Your task to perform on an android device: Go to Google maps Image 0: 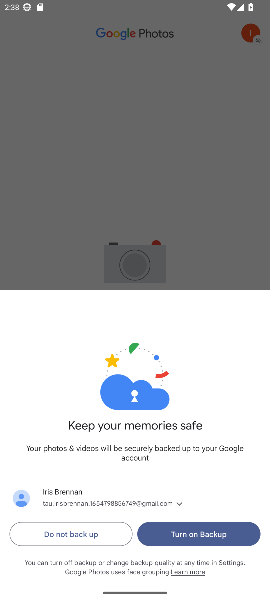
Step 0: press home button
Your task to perform on an android device: Go to Google maps Image 1: 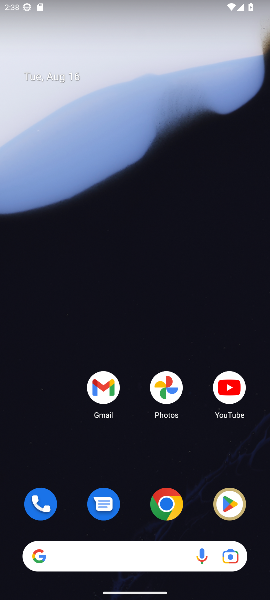
Step 1: drag from (149, 528) to (134, 243)
Your task to perform on an android device: Go to Google maps Image 2: 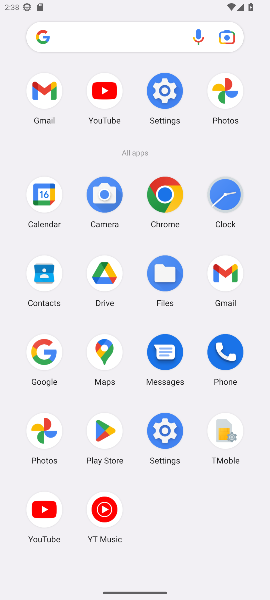
Step 2: click (107, 346)
Your task to perform on an android device: Go to Google maps Image 3: 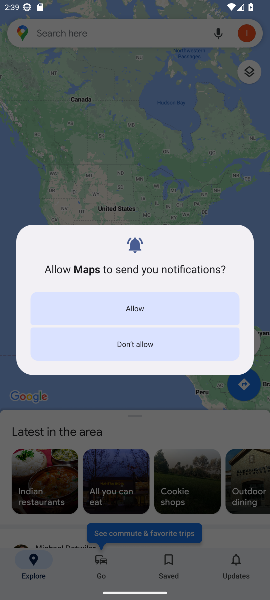
Step 3: click (134, 346)
Your task to perform on an android device: Go to Google maps Image 4: 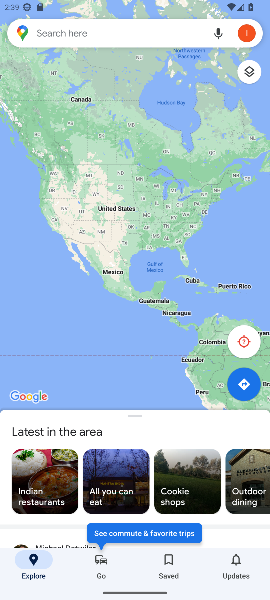
Step 4: task complete